Your task to perform on an android device: Go to settings Image 0: 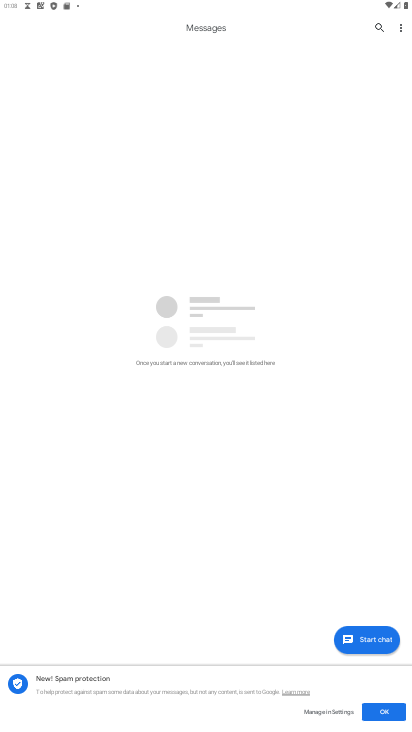
Step 0: press home button
Your task to perform on an android device: Go to settings Image 1: 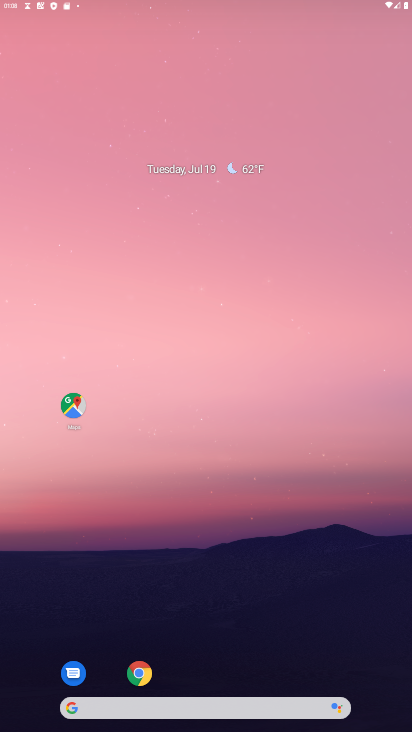
Step 1: drag from (228, 592) to (275, 209)
Your task to perform on an android device: Go to settings Image 2: 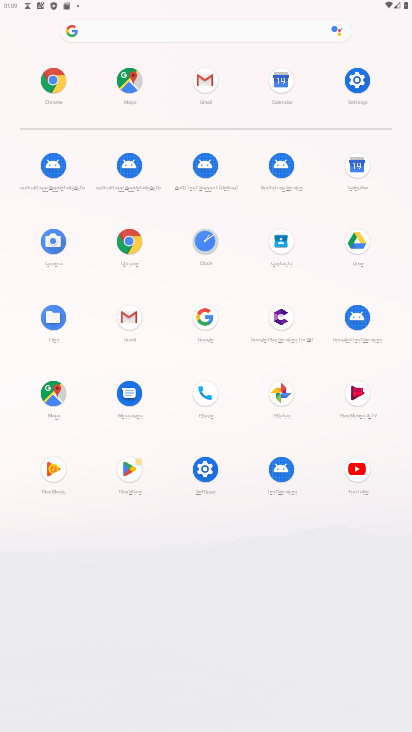
Step 2: click (363, 78)
Your task to perform on an android device: Go to settings Image 3: 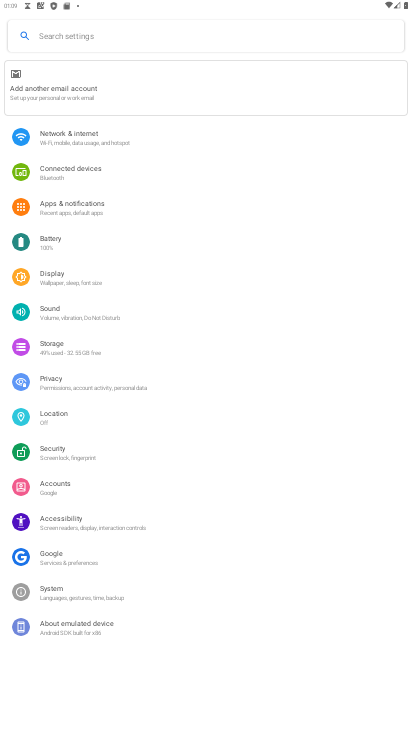
Step 3: task complete